Your task to perform on an android device: What's on my calendar today? Image 0: 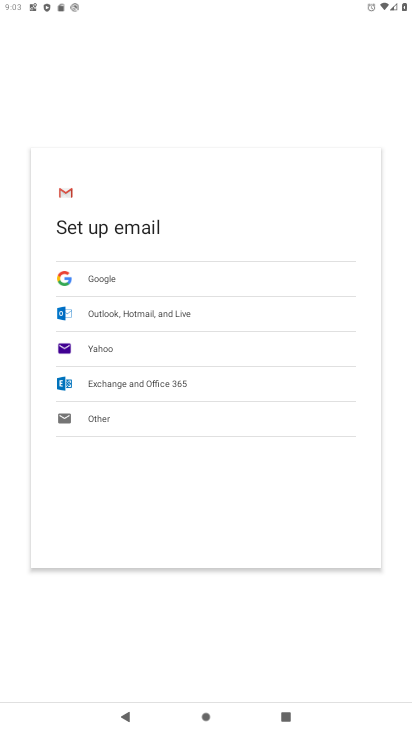
Step 0: press home button
Your task to perform on an android device: What's on my calendar today? Image 1: 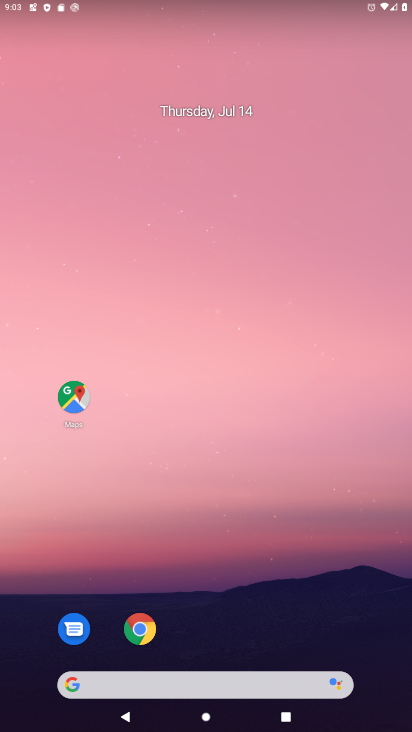
Step 1: drag from (240, 632) to (330, 37)
Your task to perform on an android device: What's on my calendar today? Image 2: 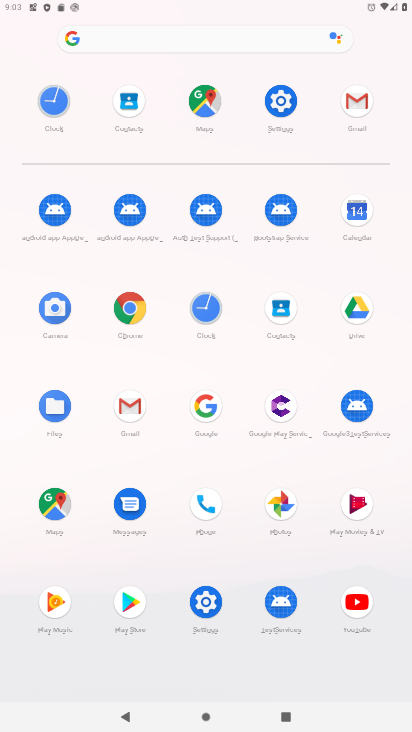
Step 2: click (351, 221)
Your task to perform on an android device: What's on my calendar today? Image 3: 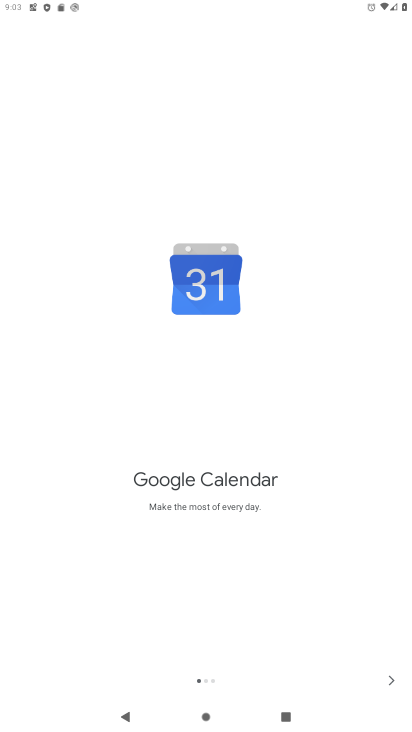
Step 3: click (388, 680)
Your task to perform on an android device: What's on my calendar today? Image 4: 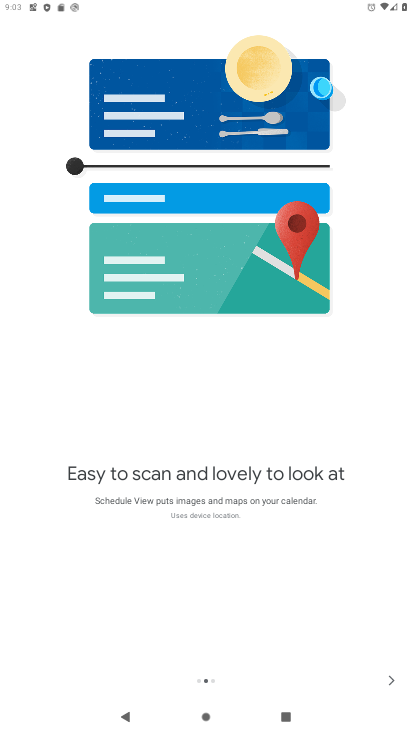
Step 4: click (388, 680)
Your task to perform on an android device: What's on my calendar today? Image 5: 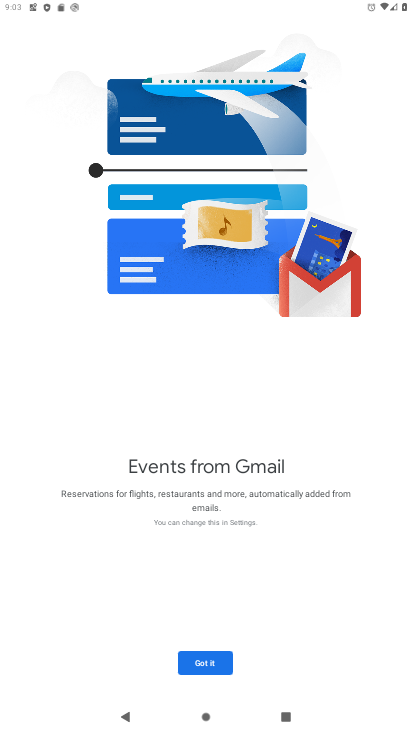
Step 5: click (216, 664)
Your task to perform on an android device: What's on my calendar today? Image 6: 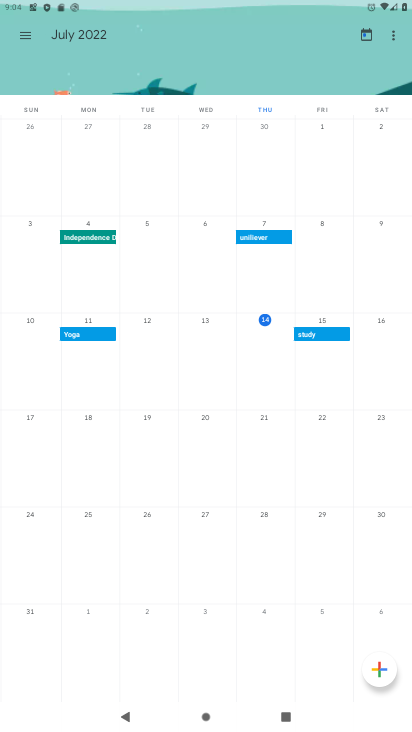
Step 6: click (273, 327)
Your task to perform on an android device: What's on my calendar today? Image 7: 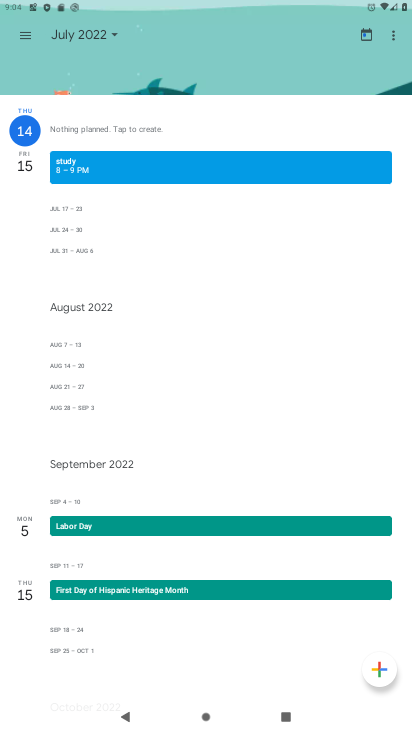
Step 7: task complete